Your task to perform on an android device: Open the web browser Image 0: 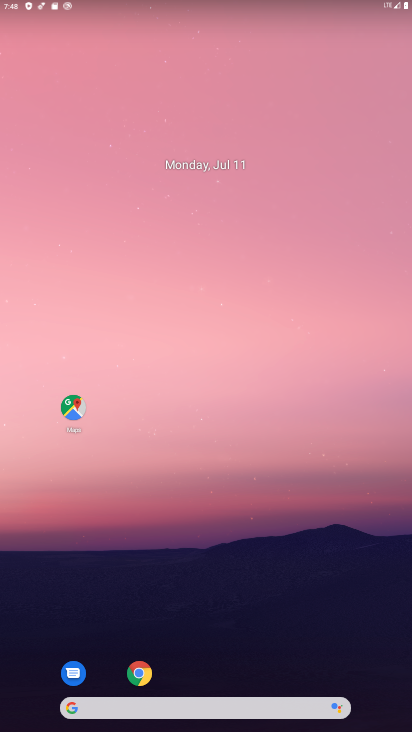
Step 0: drag from (254, 634) to (270, 186)
Your task to perform on an android device: Open the web browser Image 1: 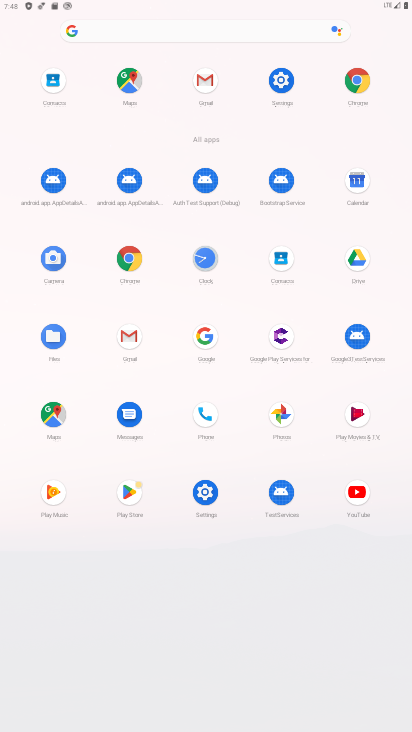
Step 1: click (356, 76)
Your task to perform on an android device: Open the web browser Image 2: 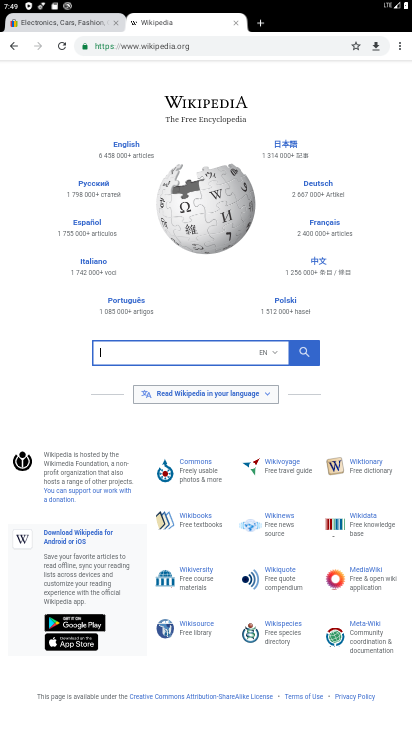
Step 2: task complete